Your task to perform on an android device: allow notifications from all sites in the chrome app Image 0: 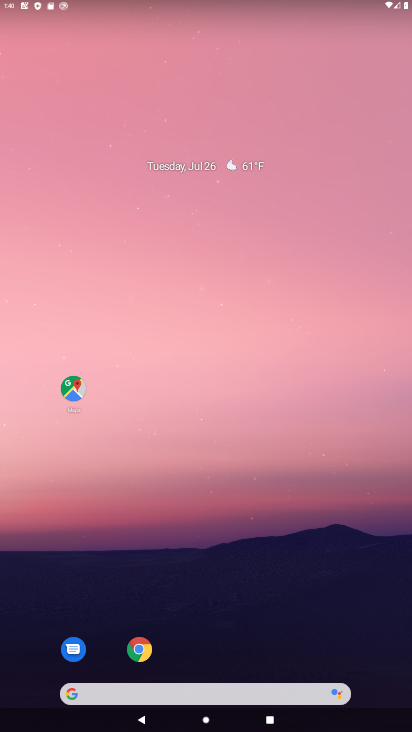
Step 0: press home button
Your task to perform on an android device: allow notifications from all sites in the chrome app Image 1: 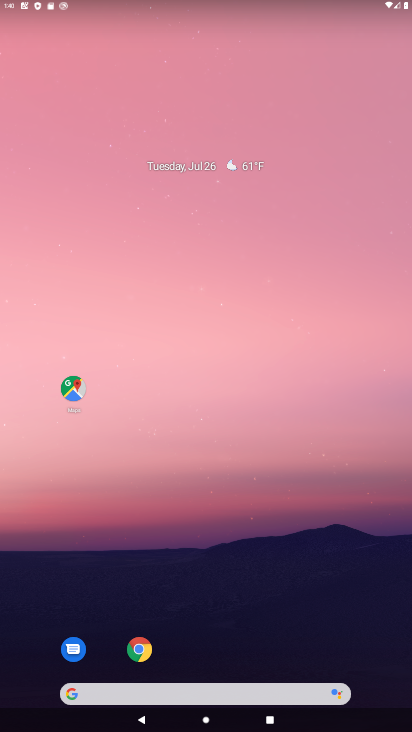
Step 1: click (137, 648)
Your task to perform on an android device: allow notifications from all sites in the chrome app Image 2: 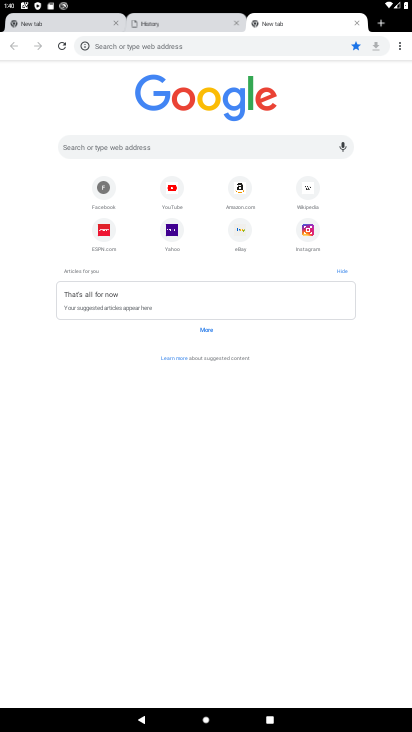
Step 2: click (399, 43)
Your task to perform on an android device: allow notifications from all sites in the chrome app Image 3: 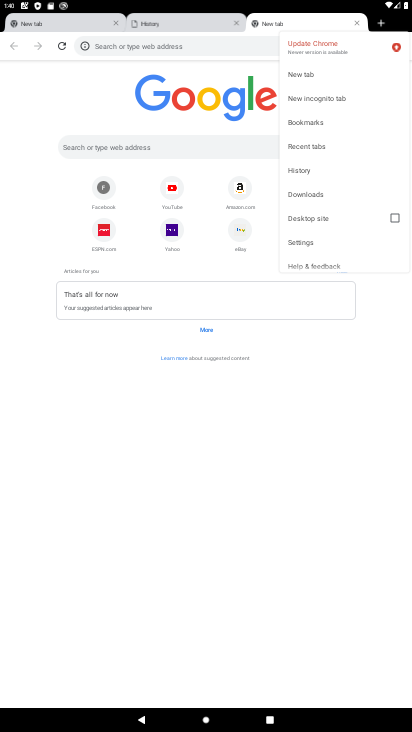
Step 3: click (318, 243)
Your task to perform on an android device: allow notifications from all sites in the chrome app Image 4: 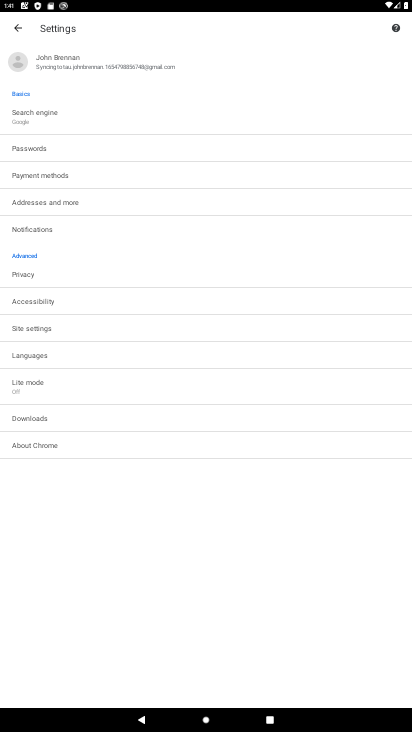
Step 4: click (54, 326)
Your task to perform on an android device: allow notifications from all sites in the chrome app Image 5: 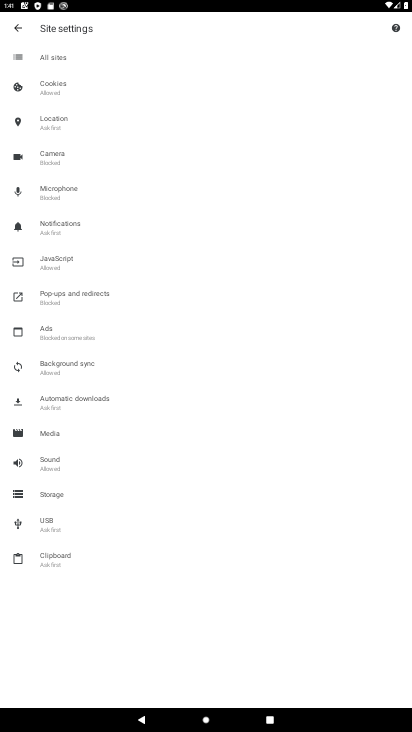
Step 5: task complete